Your task to perform on an android device: Empty the shopping cart on costco. Search for macbook pro on costco, select the first entry, and add it to the cart. Image 0: 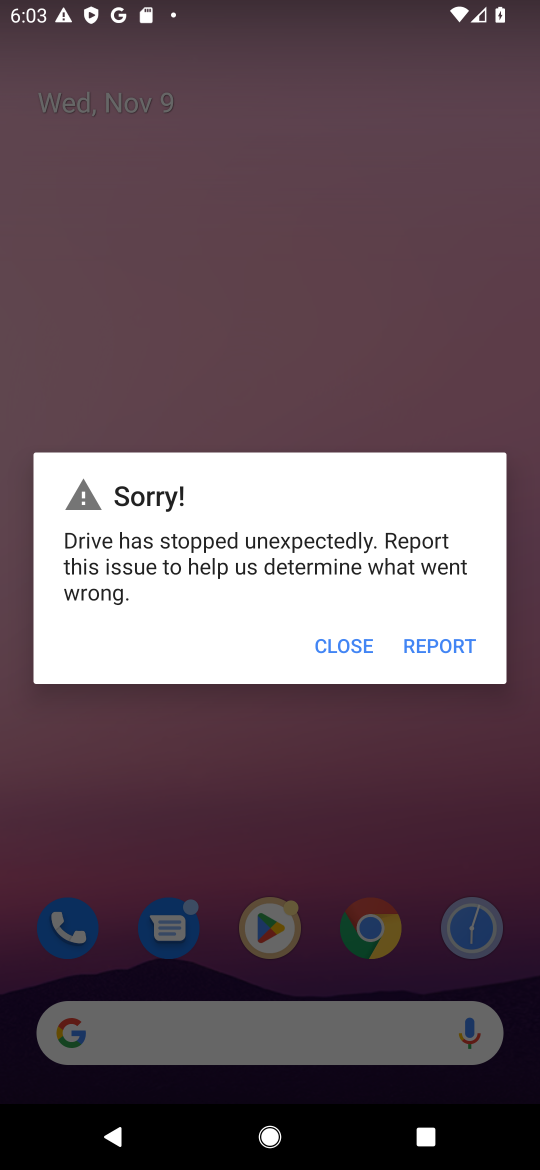
Step 0: click (348, 643)
Your task to perform on an android device: Empty the shopping cart on costco. Search for macbook pro on costco, select the first entry, and add it to the cart. Image 1: 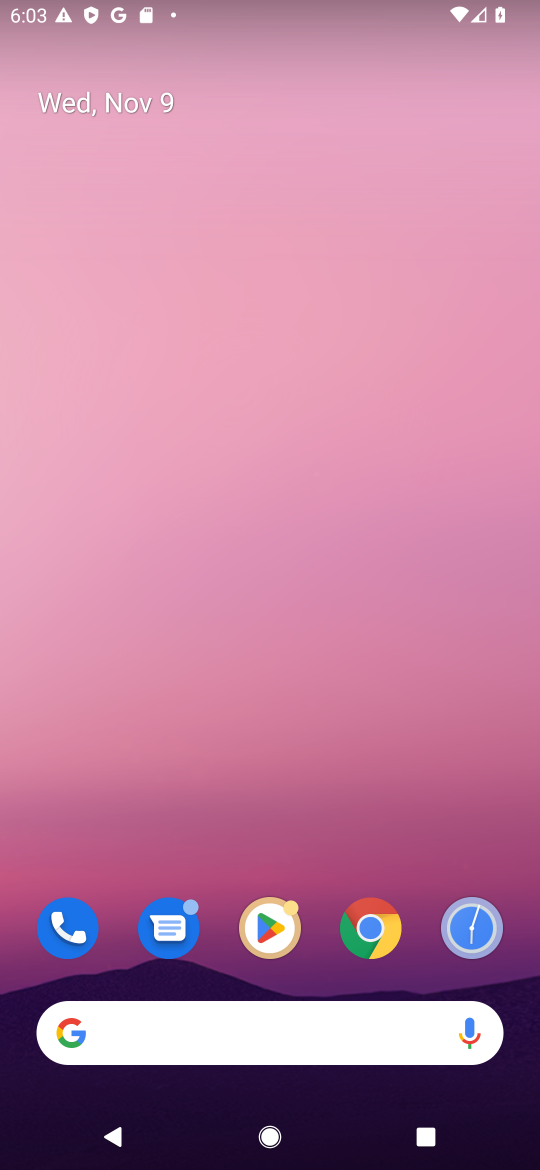
Step 1: click (373, 934)
Your task to perform on an android device: Empty the shopping cart on costco. Search for macbook pro on costco, select the first entry, and add it to the cart. Image 2: 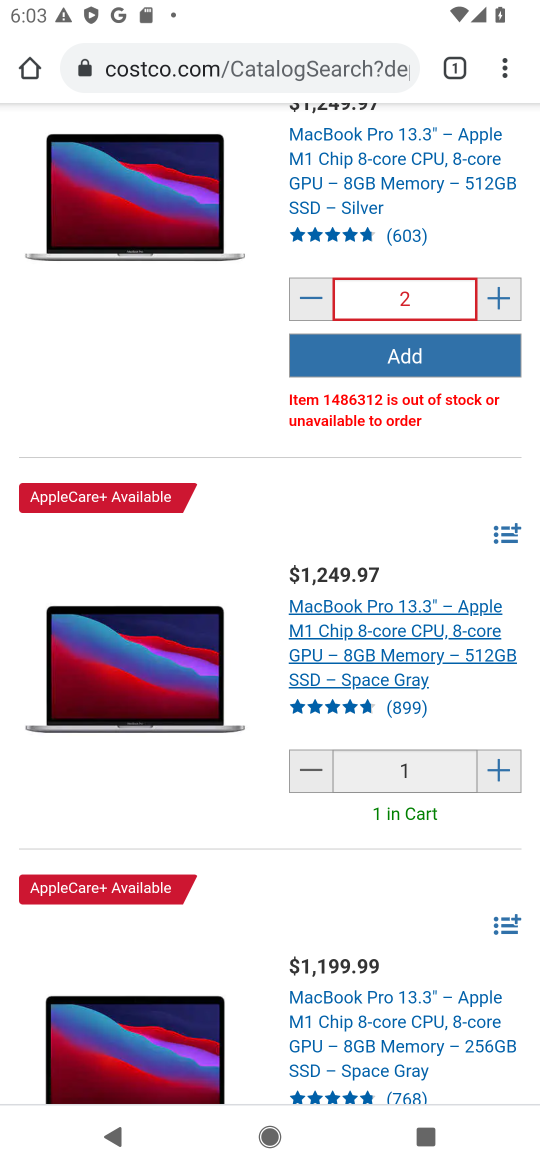
Step 2: drag from (104, 302) to (97, 957)
Your task to perform on an android device: Empty the shopping cart on costco. Search for macbook pro on costco, select the first entry, and add it to the cart. Image 3: 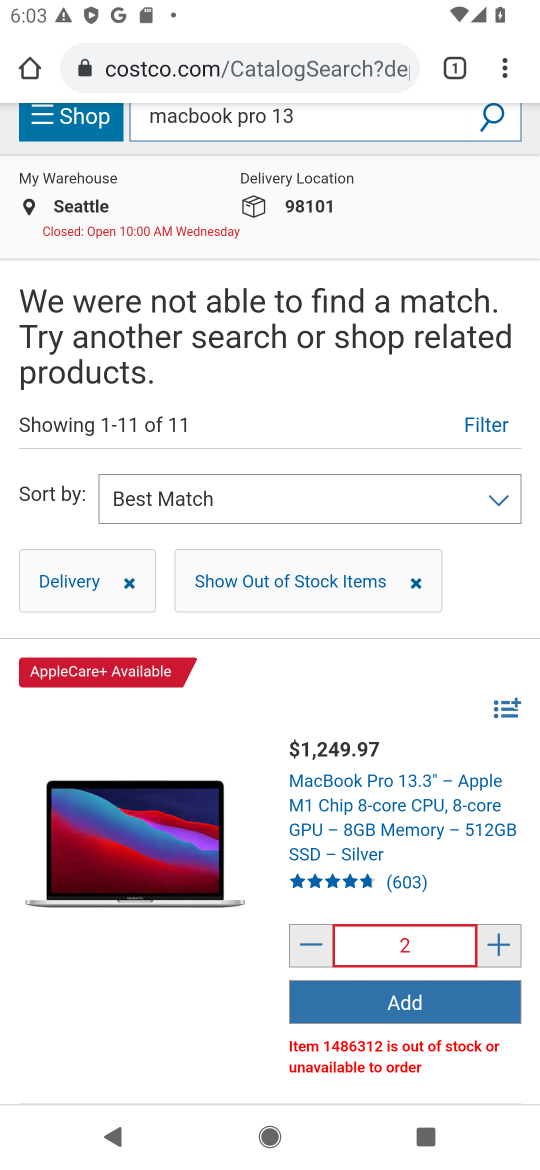
Step 3: drag from (423, 900) to (428, 392)
Your task to perform on an android device: Empty the shopping cart on costco. Search for macbook pro on costco, select the first entry, and add it to the cart. Image 4: 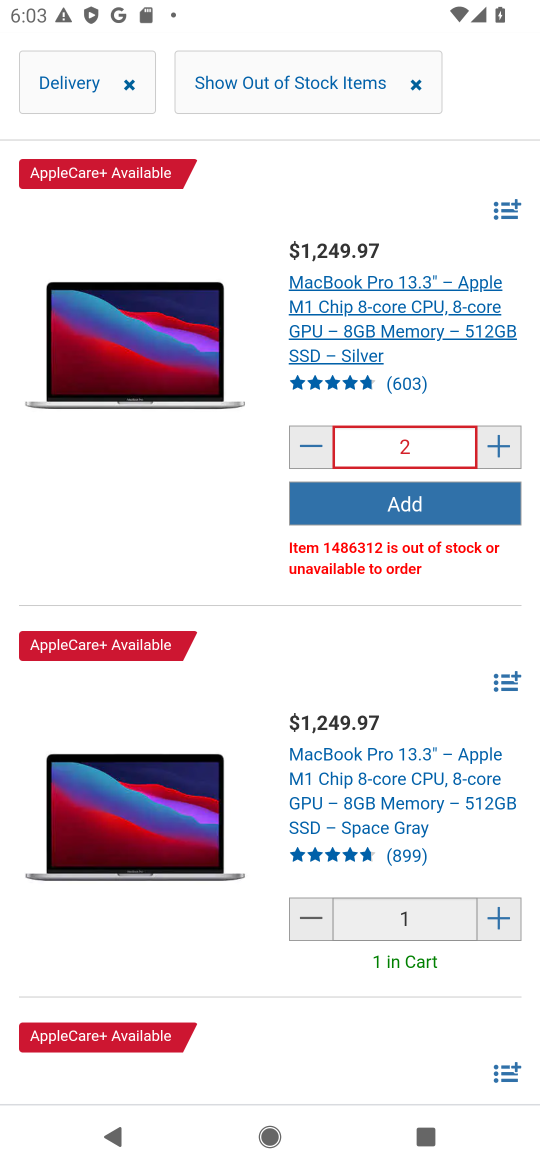
Step 4: click (500, 923)
Your task to perform on an android device: Empty the shopping cart on costco. Search for macbook pro on costco, select the first entry, and add it to the cart. Image 5: 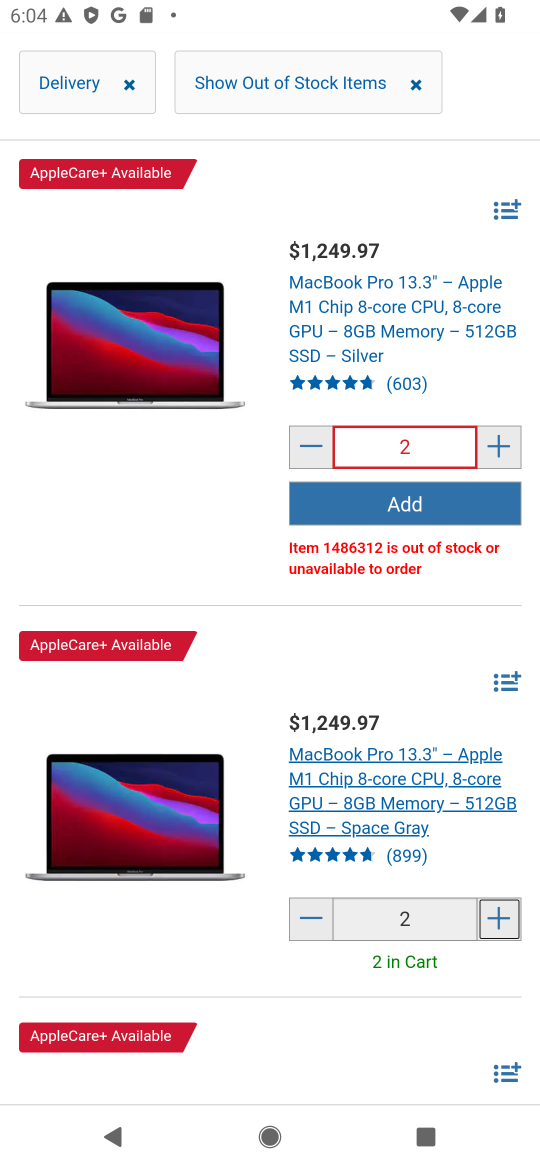
Step 5: drag from (430, 217) to (343, 954)
Your task to perform on an android device: Empty the shopping cart on costco. Search for macbook pro on costco, select the first entry, and add it to the cart. Image 6: 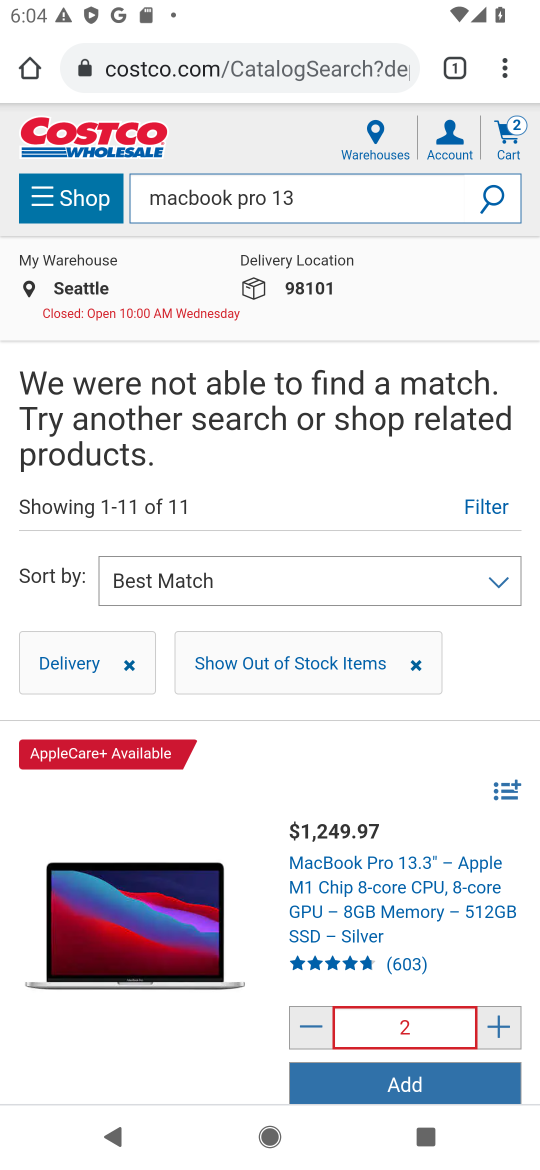
Step 6: click (511, 135)
Your task to perform on an android device: Empty the shopping cart on costco. Search for macbook pro on costco, select the first entry, and add it to the cart. Image 7: 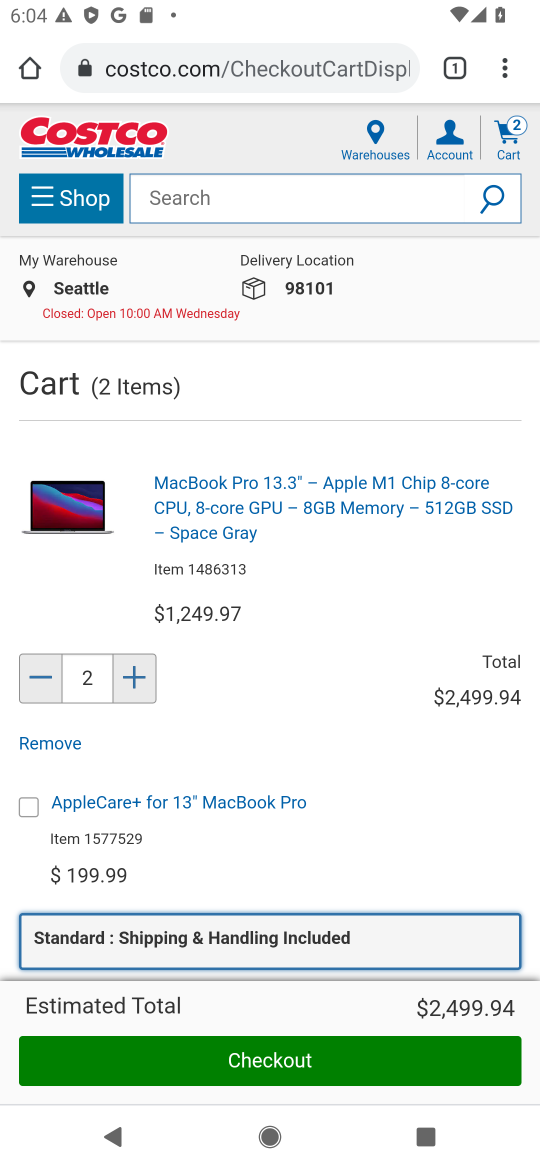
Step 7: click (42, 677)
Your task to perform on an android device: Empty the shopping cart on costco. Search for macbook pro on costco, select the first entry, and add it to the cart. Image 8: 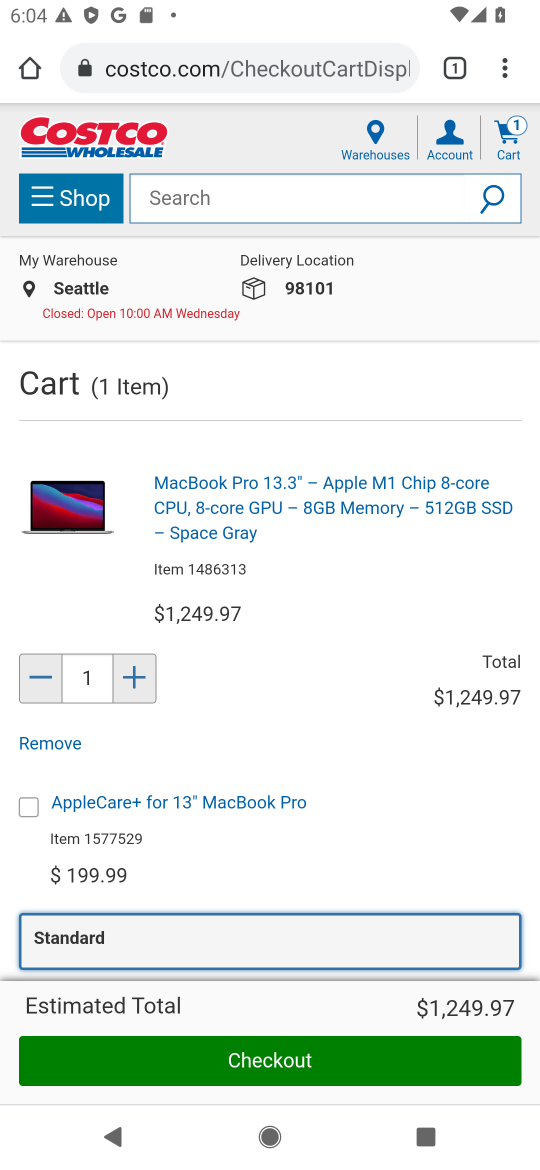
Step 8: task complete